Your task to perform on an android device: Open sound settings Image 0: 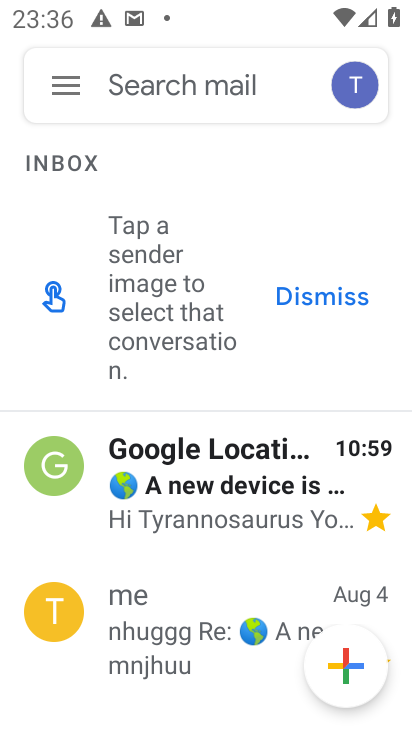
Step 0: press home button
Your task to perform on an android device: Open sound settings Image 1: 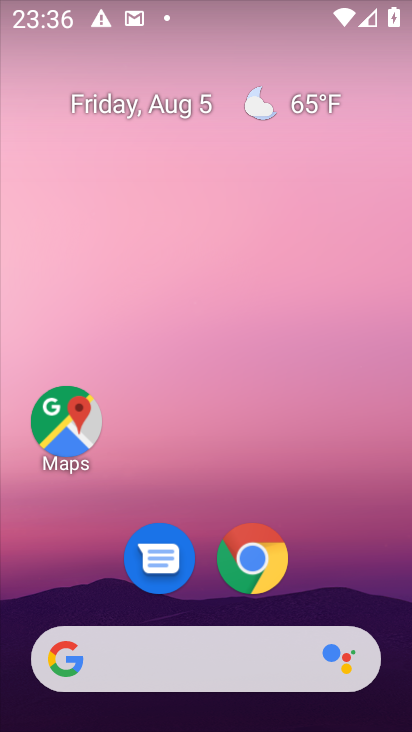
Step 1: drag from (364, 565) to (372, 268)
Your task to perform on an android device: Open sound settings Image 2: 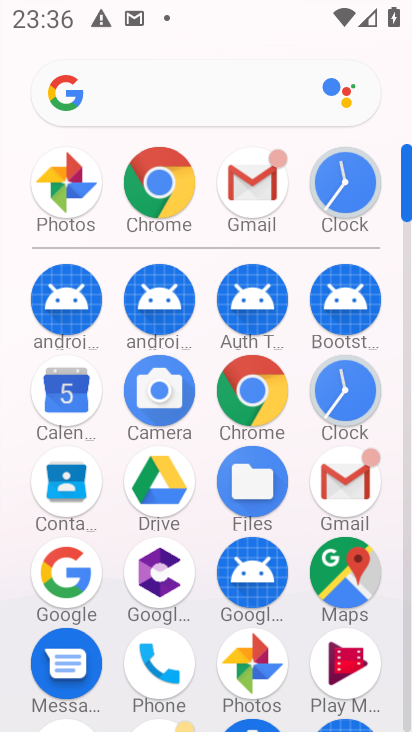
Step 2: drag from (389, 531) to (396, 416)
Your task to perform on an android device: Open sound settings Image 3: 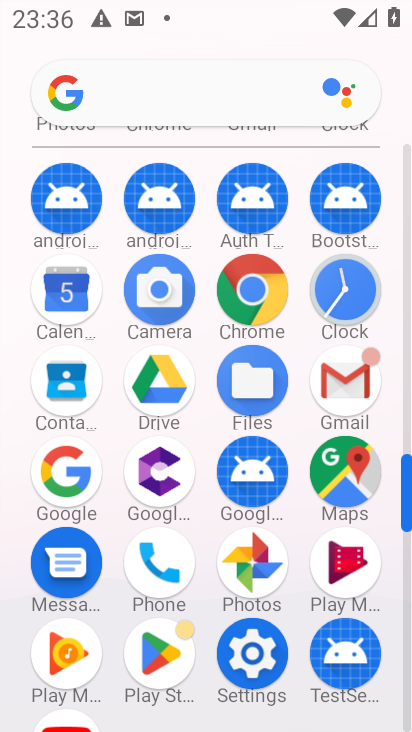
Step 3: click (248, 652)
Your task to perform on an android device: Open sound settings Image 4: 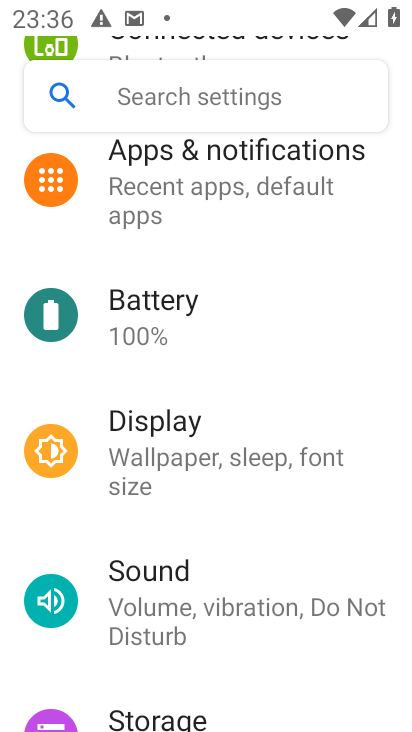
Step 4: drag from (372, 225) to (375, 322)
Your task to perform on an android device: Open sound settings Image 5: 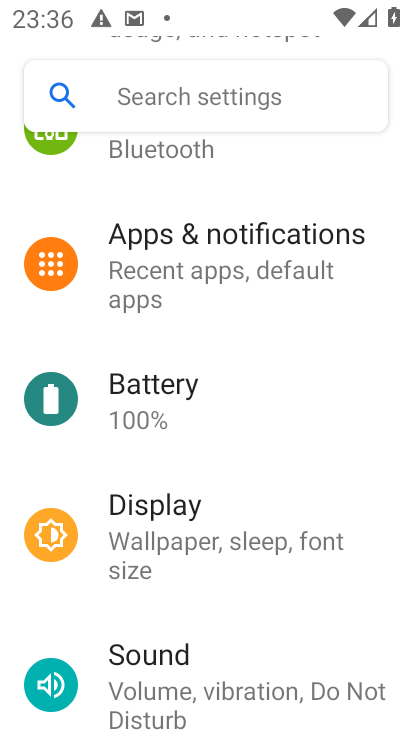
Step 5: drag from (381, 157) to (384, 306)
Your task to perform on an android device: Open sound settings Image 6: 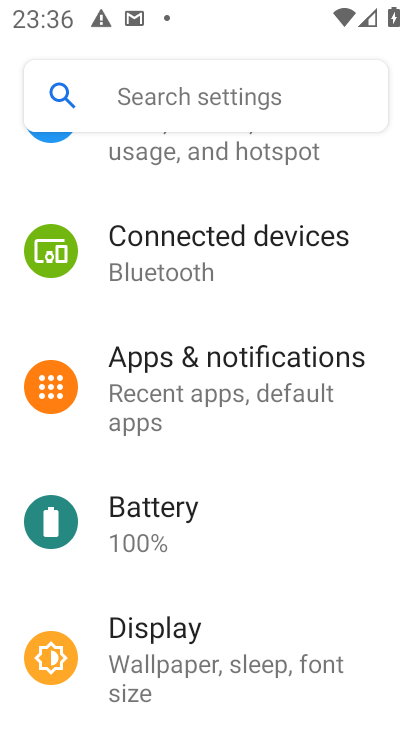
Step 6: drag from (377, 158) to (371, 327)
Your task to perform on an android device: Open sound settings Image 7: 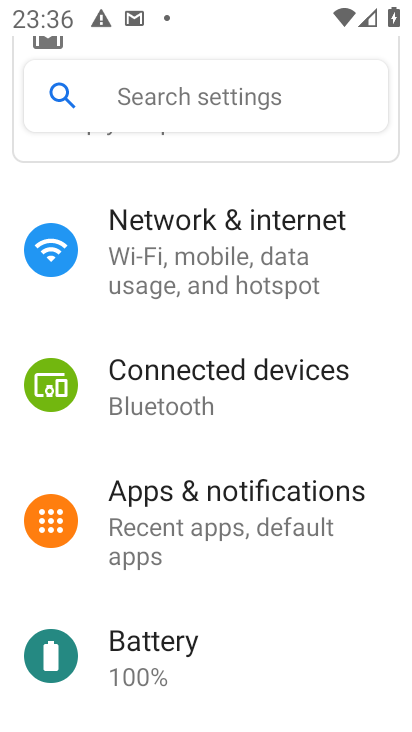
Step 7: drag from (372, 182) to (368, 358)
Your task to perform on an android device: Open sound settings Image 8: 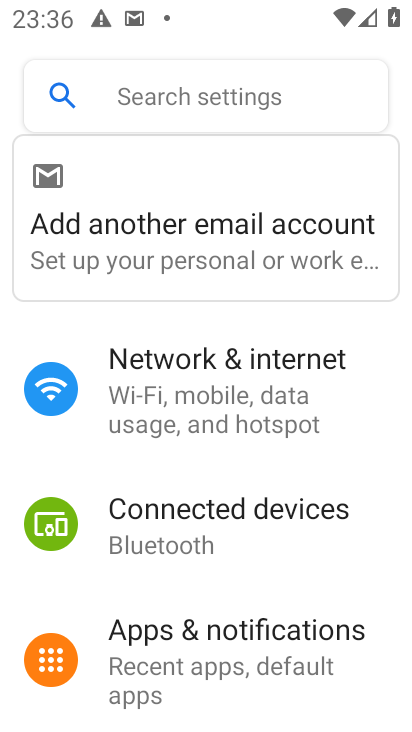
Step 8: drag from (374, 412) to (381, 292)
Your task to perform on an android device: Open sound settings Image 9: 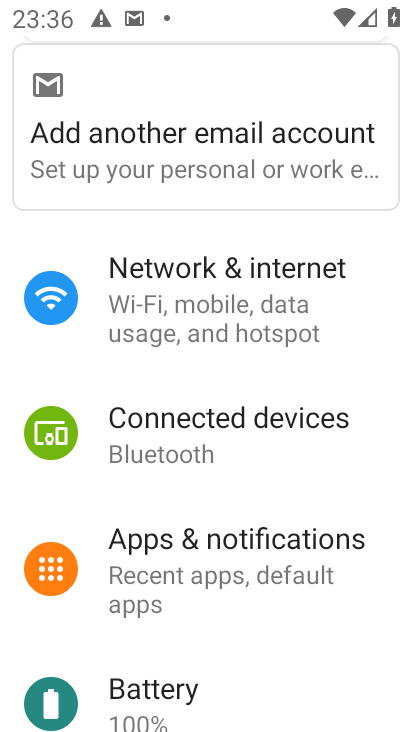
Step 9: drag from (366, 373) to (370, 251)
Your task to perform on an android device: Open sound settings Image 10: 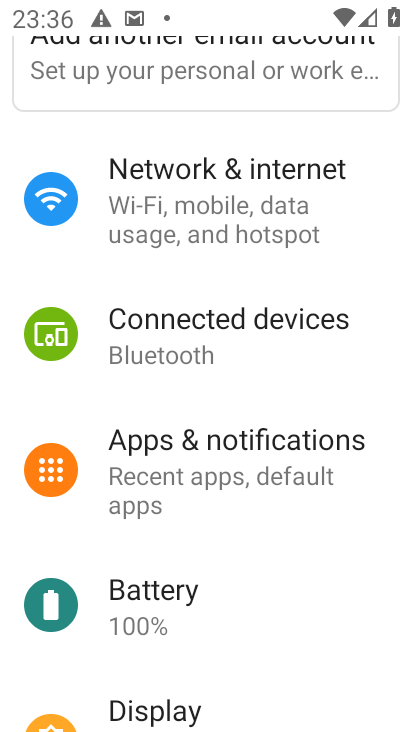
Step 10: drag from (354, 382) to (375, 267)
Your task to perform on an android device: Open sound settings Image 11: 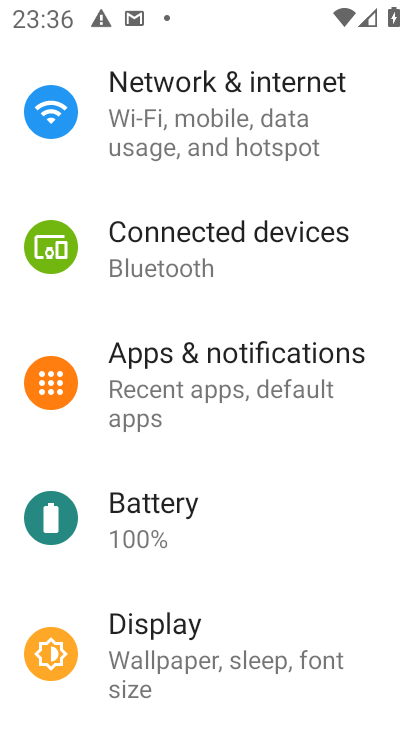
Step 11: drag from (365, 385) to (378, 276)
Your task to perform on an android device: Open sound settings Image 12: 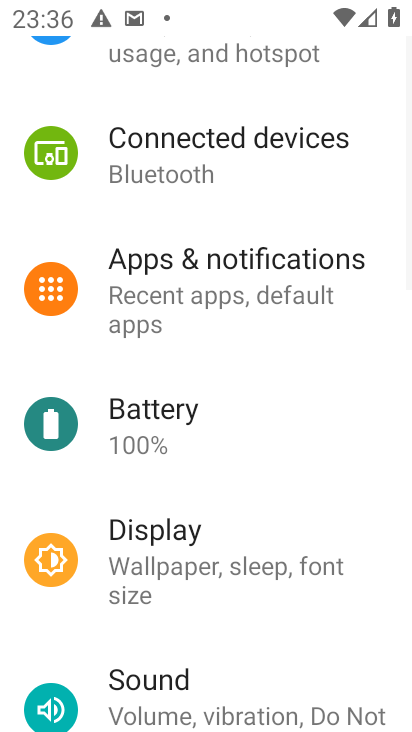
Step 12: drag from (353, 396) to (367, 281)
Your task to perform on an android device: Open sound settings Image 13: 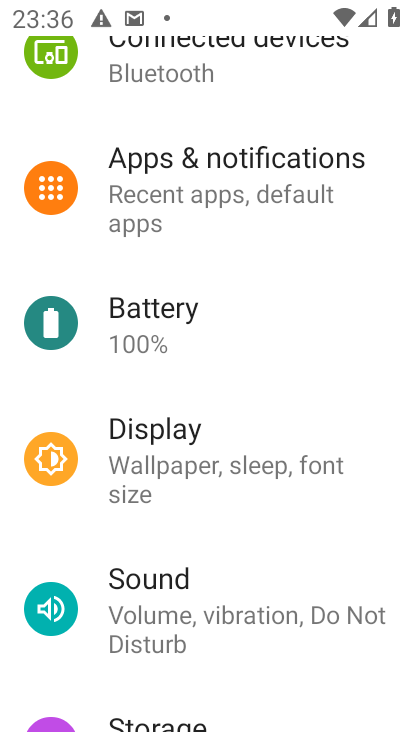
Step 13: drag from (348, 399) to (350, 307)
Your task to perform on an android device: Open sound settings Image 14: 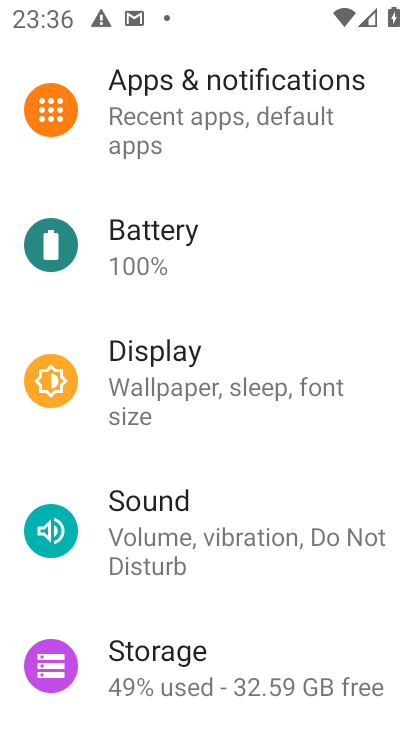
Step 14: drag from (334, 459) to (355, 313)
Your task to perform on an android device: Open sound settings Image 15: 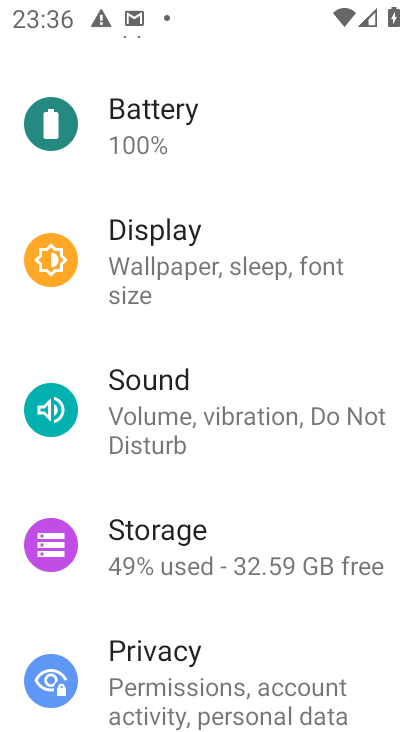
Step 15: drag from (332, 474) to (346, 326)
Your task to perform on an android device: Open sound settings Image 16: 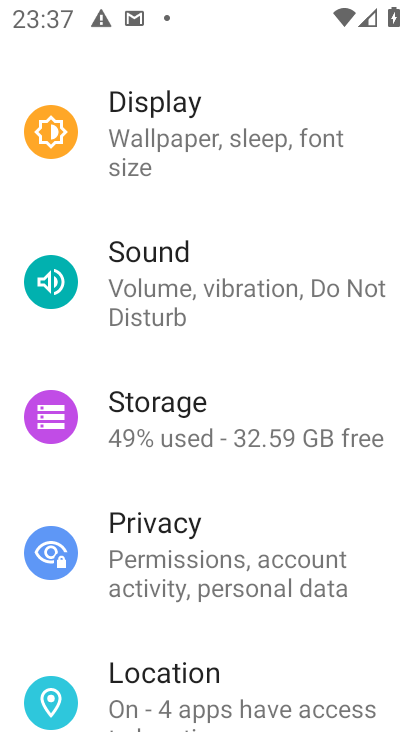
Step 16: click (283, 279)
Your task to perform on an android device: Open sound settings Image 17: 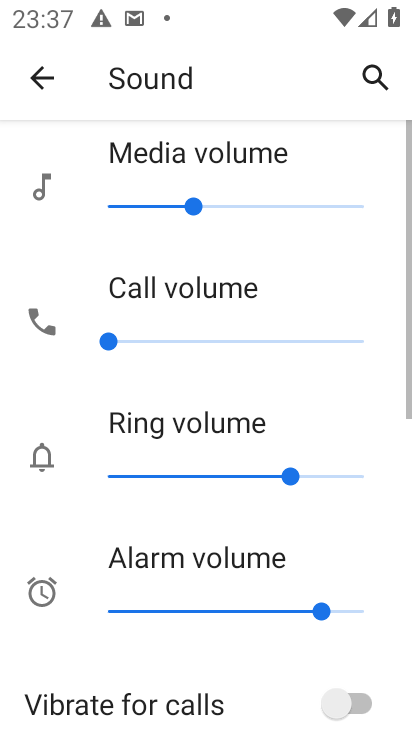
Step 17: task complete